Your task to perform on an android device: Open settings on Google Maps Image 0: 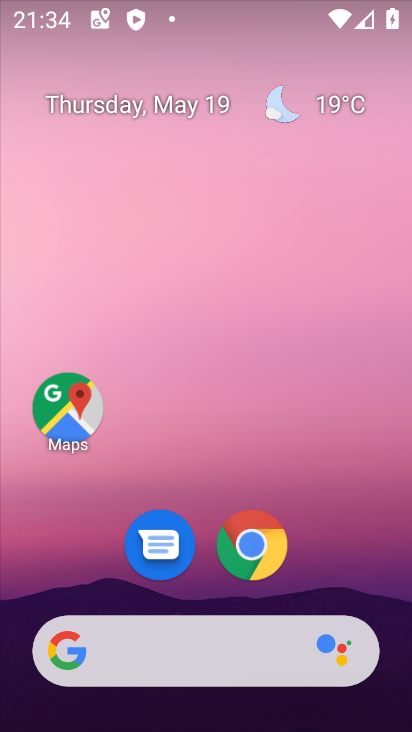
Step 0: click (63, 425)
Your task to perform on an android device: Open settings on Google Maps Image 1: 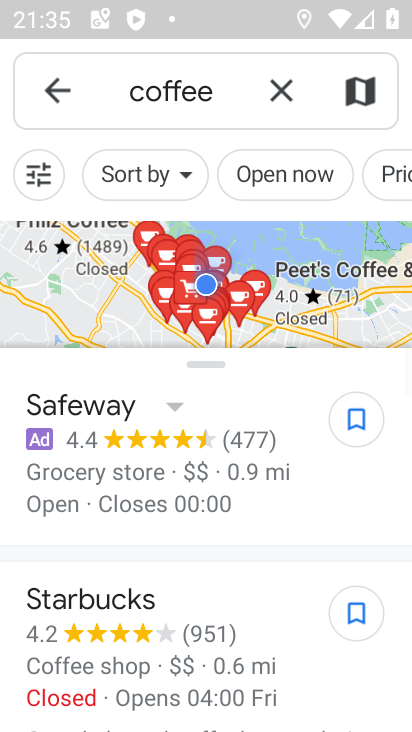
Step 1: click (59, 97)
Your task to perform on an android device: Open settings on Google Maps Image 2: 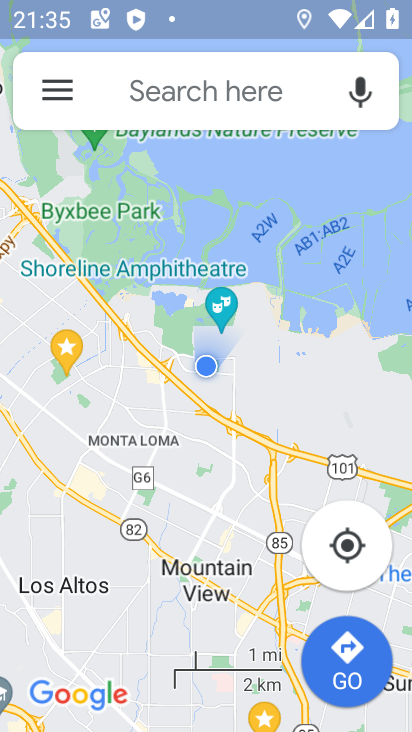
Step 2: click (59, 97)
Your task to perform on an android device: Open settings on Google Maps Image 3: 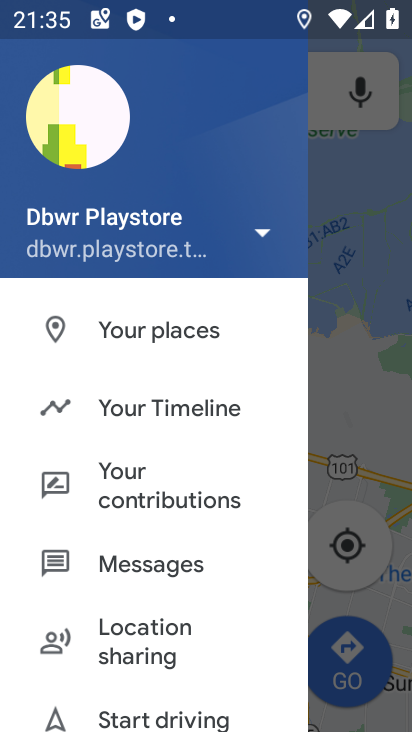
Step 3: drag from (179, 613) to (153, 318)
Your task to perform on an android device: Open settings on Google Maps Image 4: 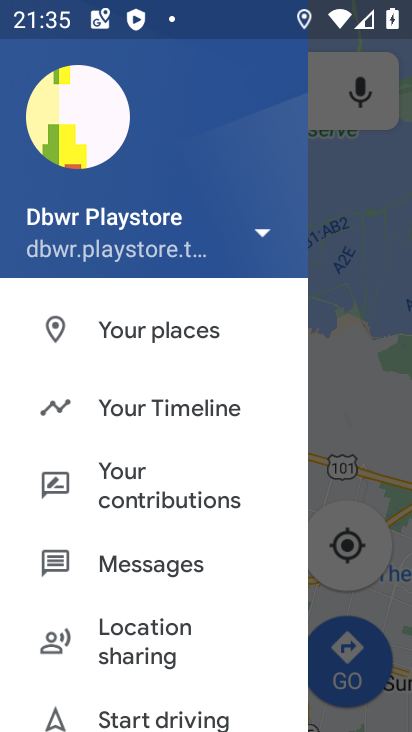
Step 4: drag from (130, 633) to (143, 396)
Your task to perform on an android device: Open settings on Google Maps Image 5: 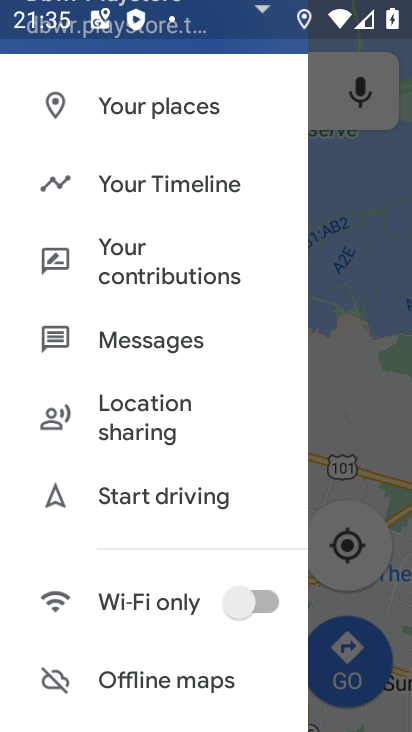
Step 5: drag from (136, 708) to (141, 396)
Your task to perform on an android device: Open settings on Google Maps Image 6: 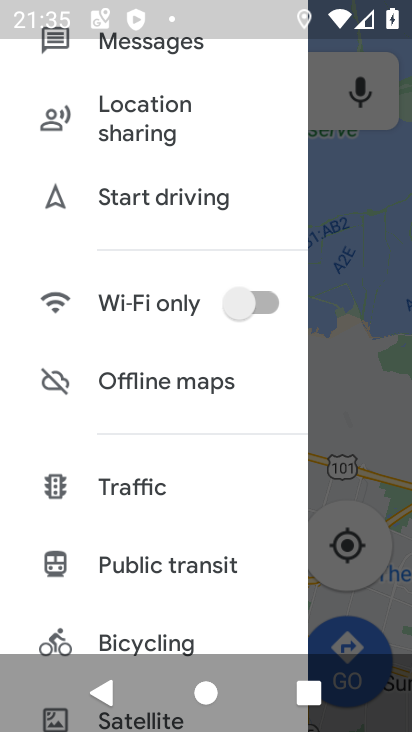
Step 6: drag from (154, 599) to (189, 338)
Your task to perform on an android device: Open settings on Google Maps Image 7: 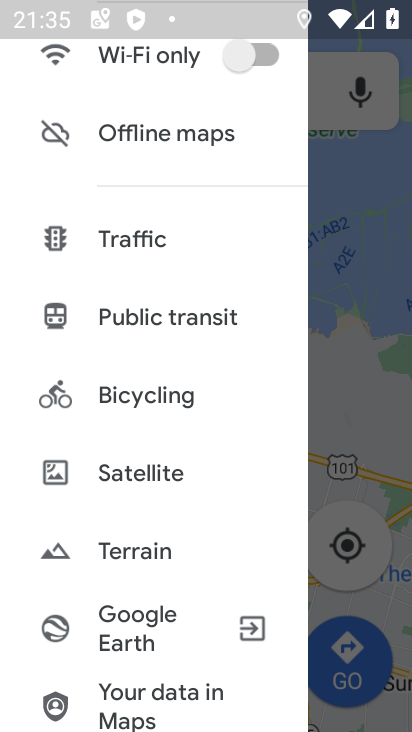
Step 7: drag from (185, 577) to (202, 264)
Your task to perform on an android device: Open settings on Google Maps Image 8: 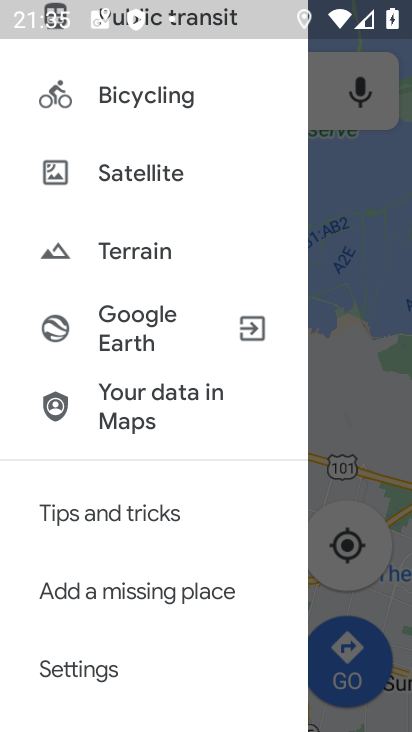
Step 8: click (122, 673)
Your task to perform on an android device: Open settings on Google Maps Image 9: 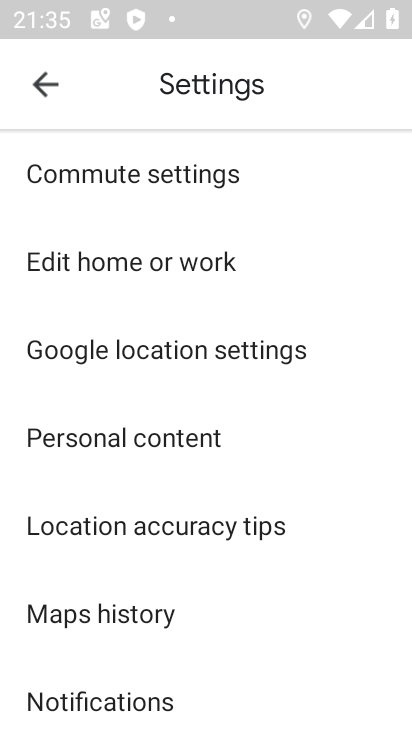
Step 9: task complete